Your task to perform on an android device: turn on location history Image 0: 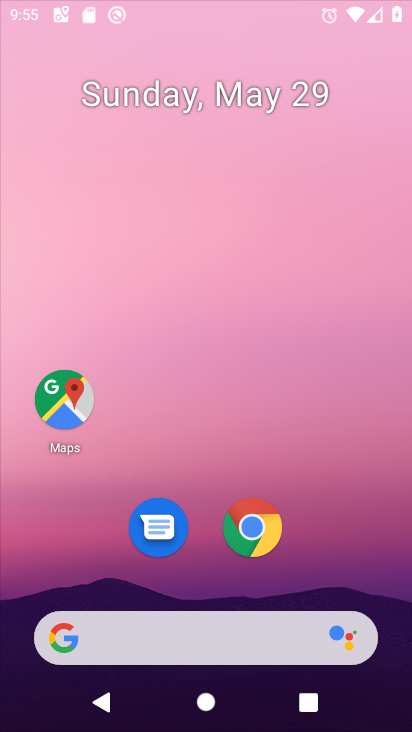
Step 0: press home button
Your task to perform on an android device: turn on location history Image 1: 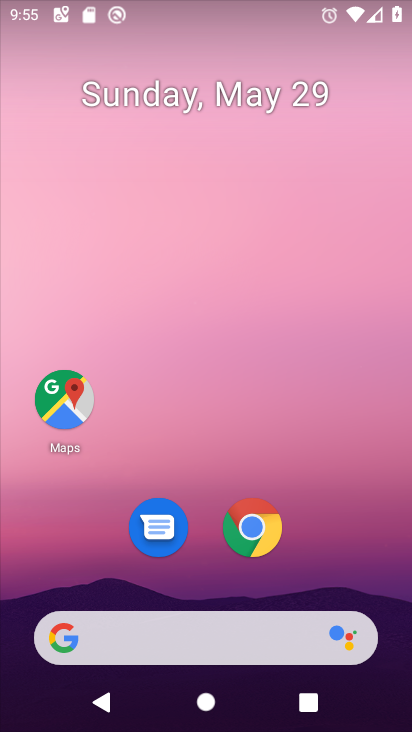
Step 1: drag from (212, 590) to (239, 69)
Your task to perform on an android device: turn on location history Image 2: 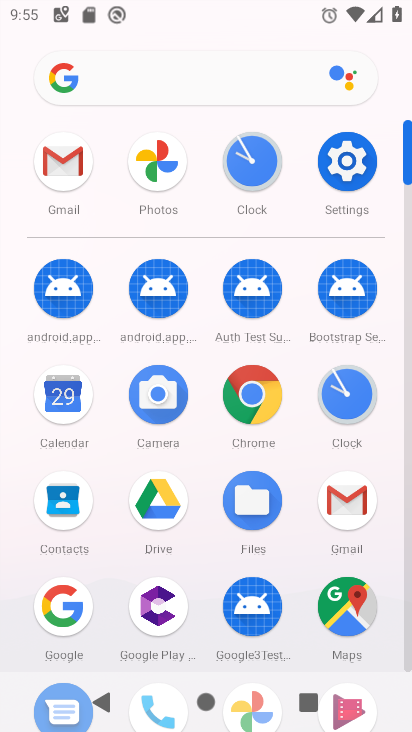
Step 2: click (344, 156)
Your task to perform on an android device: turn on location history Image 3: 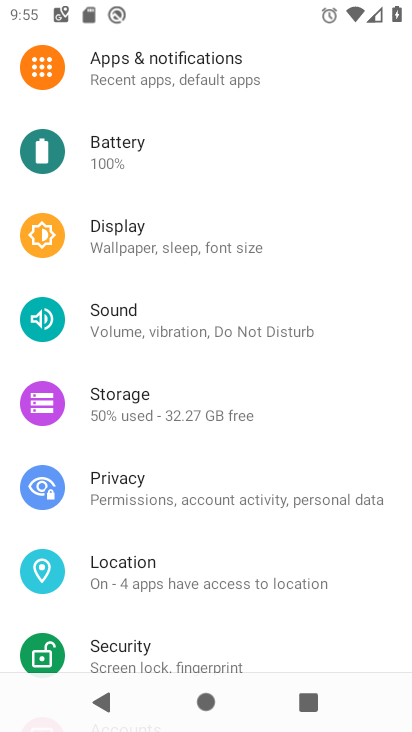
Step 3: click (172, 553)
Your task to perform on an android device: turn on location history Image 4: 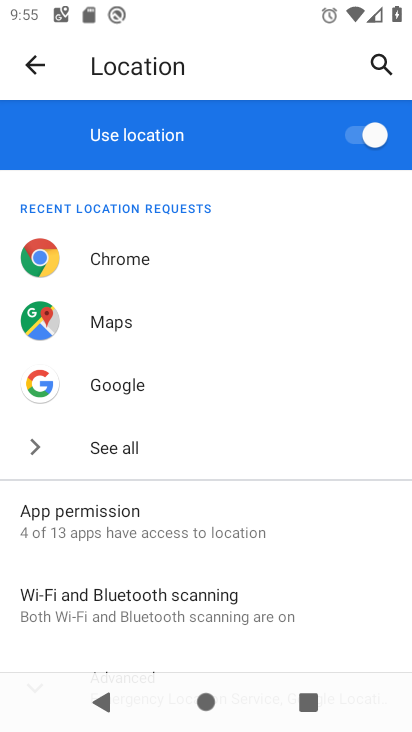
Step 4: drag from (146, 602) to (209, 109)
Your task to perform on an android device: turn on location history Image 5: 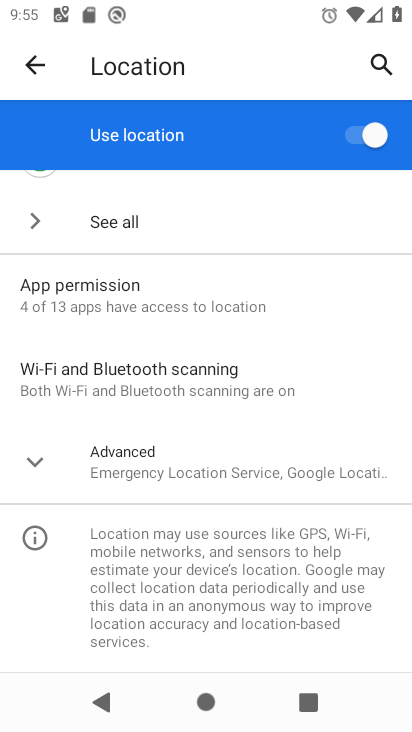
Step 5: click (34, 453)
Your task to perform on an android device: turn on location history Image 6: 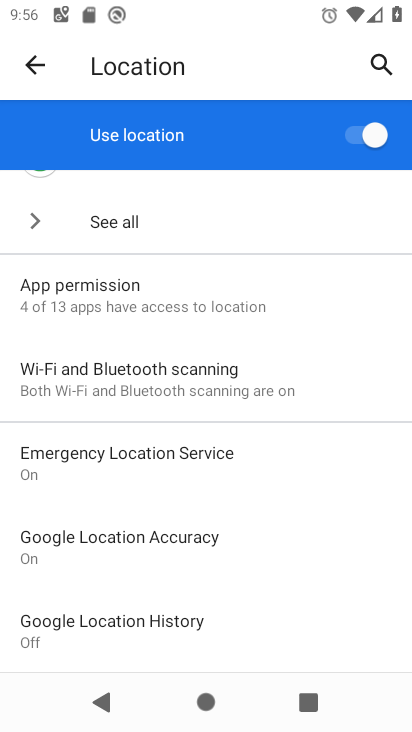
Step 6: click (128, 627)
Your task to perform on an android device: turn on location history Image 7: 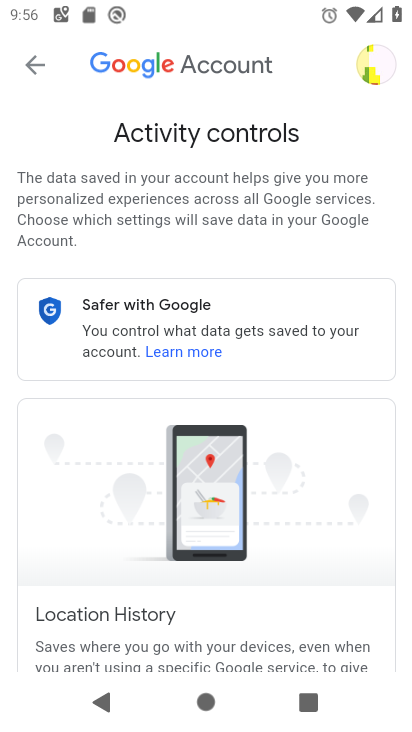
Step 7: task complete